Your task to perform on an android device: turn on the 24-hour format for clock Image 0: 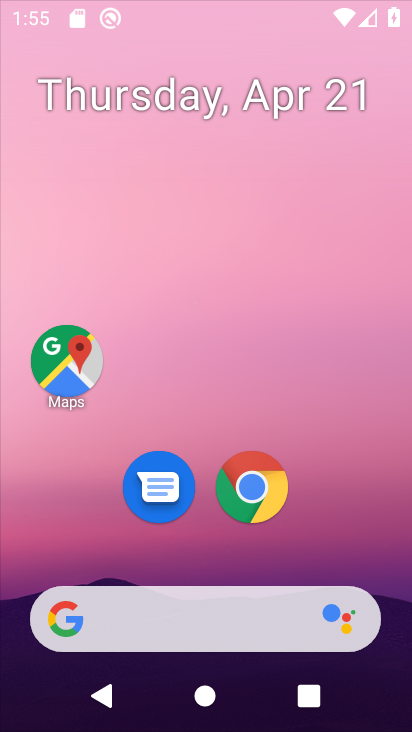
Step 0: click (174, 146)
Your task to perform on an android device: turn on the 24-hour format for clock Image 1: 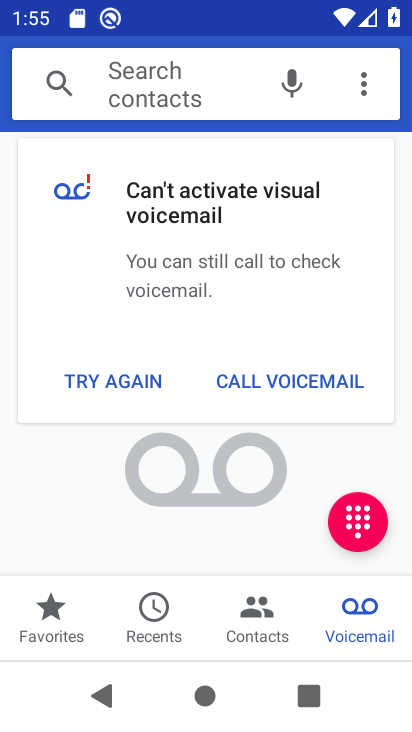
Step 1: drag from (218, 566) to (237, 378)
Your task to perform on an android device: turn on the 24-hour format for clock Image 2: 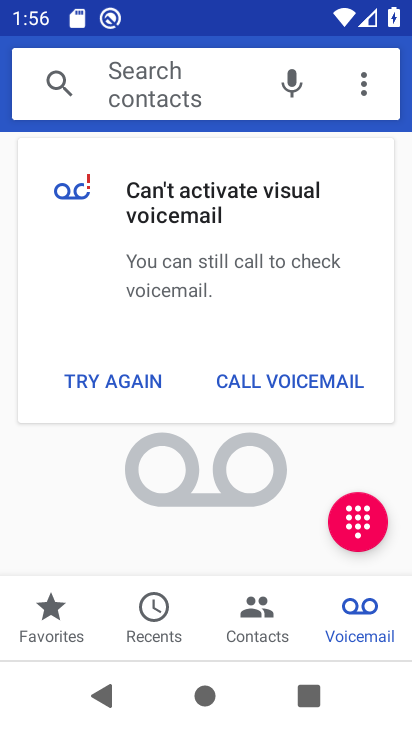
Step 2: press home button
Your task to perform on an android device: turn on the 24-hour format for clock Image 3: 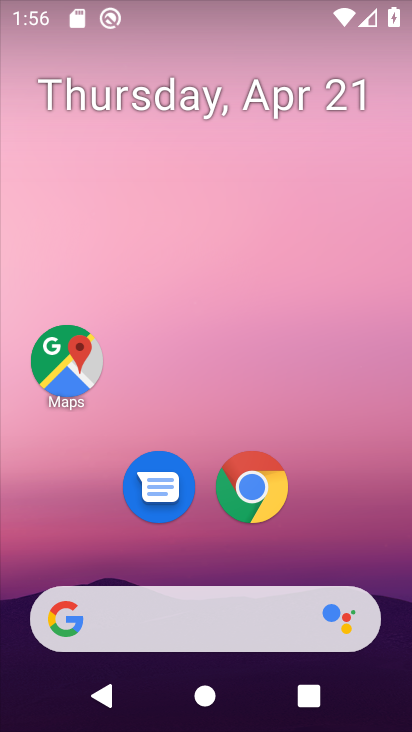
Step 3: drag from (227, 587) to (260, 232)
Your task to perform on an android device: turn on the 24-hour format for clock Image 4: 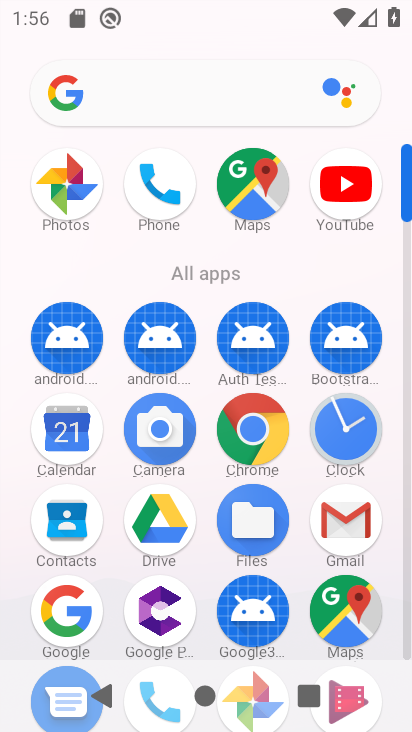
Step 4: click (354, 434)
Your task to perform on an android device: turn on the 24-hour format for clock Image 5: 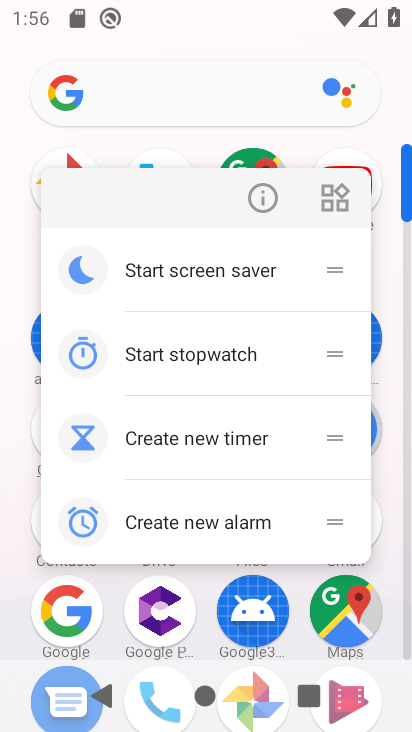
Step 5: click (258, 186)
Your task to perform on an android device: turn on the 24-hour format for clock Image 6: 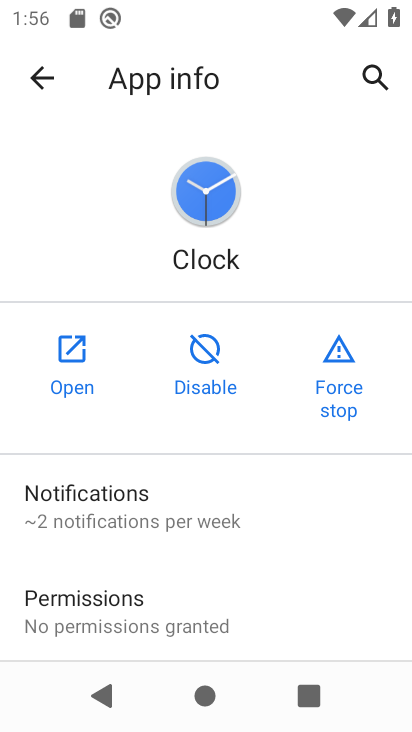
Step 6: click (79, 371)
Your task to perform on an android device: turn on the 24-hour format for clock Image 7: 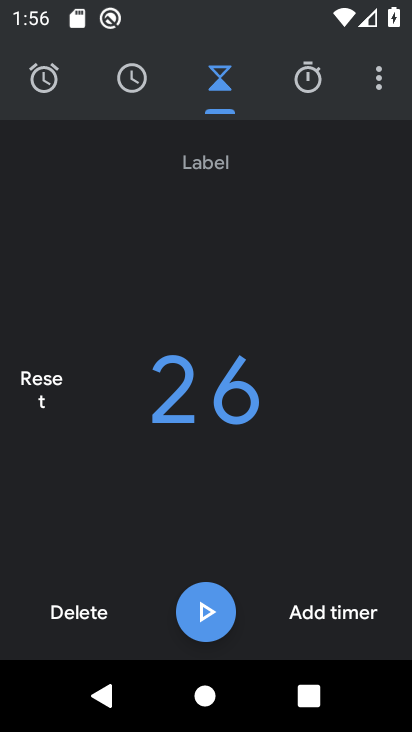
Step 7: click (379, 90)
Your task to perform on an android device: turn on the 24-hour format for clock Image 8: 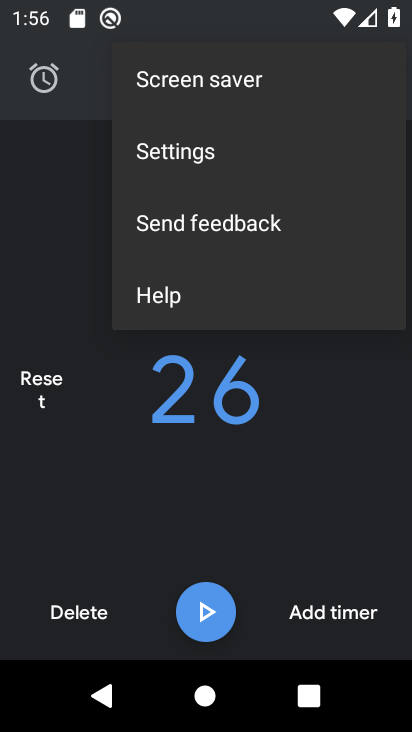
Step 8: click (230, 155)
Your task to perform on an android device: turn on the 24-hour format for clock Image 9: 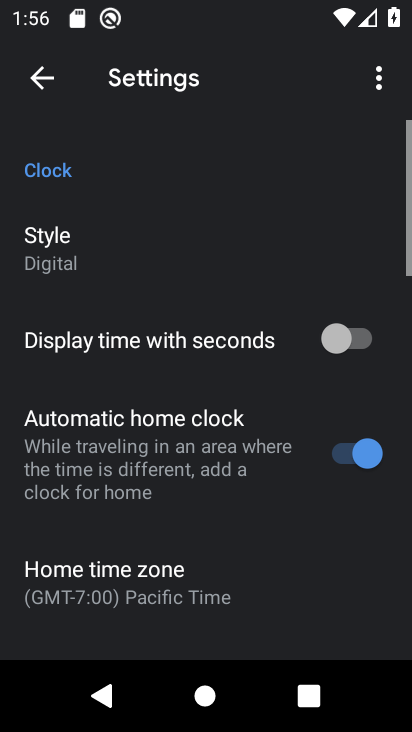
Step 9: drag from (262, 491) to (329, 16)
Your task to perform on an android device: turn on the 24-hour format for clock Image 10: 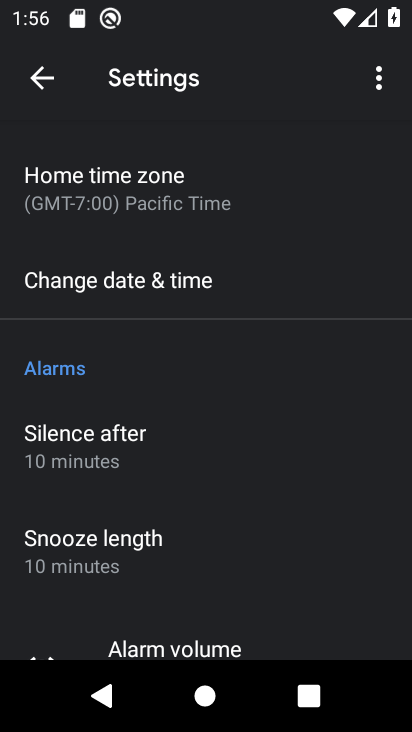
Step 10: click (167, 287)
Your task to perform on an android device: turn on the 24-hour format for clock Image 11: 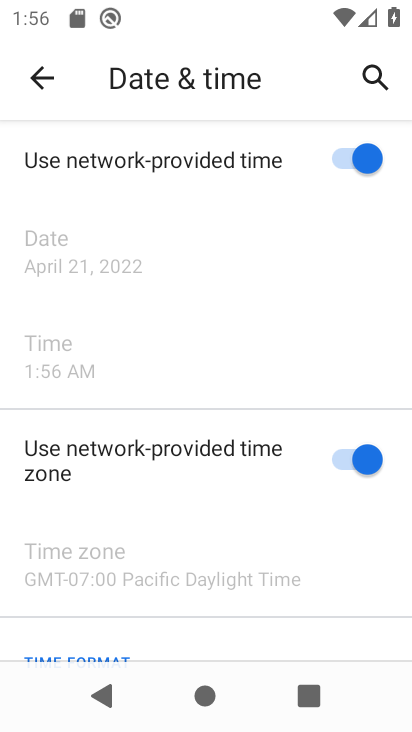
Step 11: drag from (210, 460) to (236, 58)
Your task to perform on an android device: turn on the 24-hour format for clock Image 12: 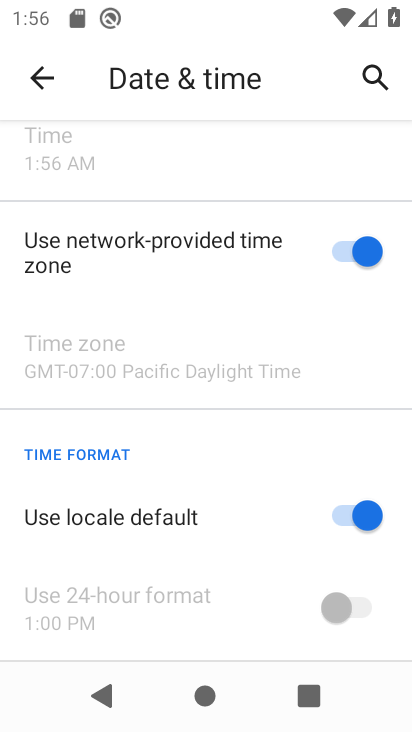
Step 12: drag from (224, 480) to (264, 100)
Your task to perform on an android device: turn on the 24-hour format for clock Image 13: 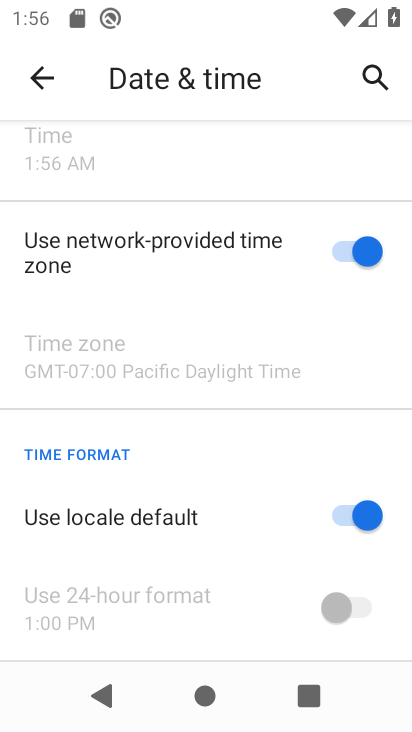
Step 13: drag from (278, 387) to (282, 178)
Your task to perform on an android device: turn on the 24-hour format for clock Image 14: 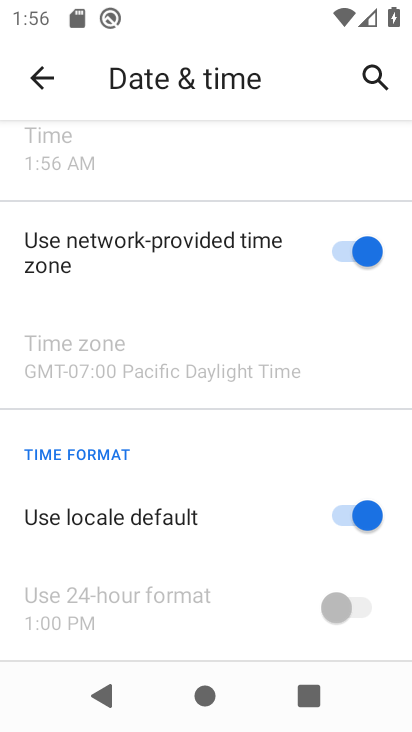
Step 14: drag from (233, 517) to (214, 332)
Your task to perform on an android device: turn on the 24-hour format for clock Image 15: 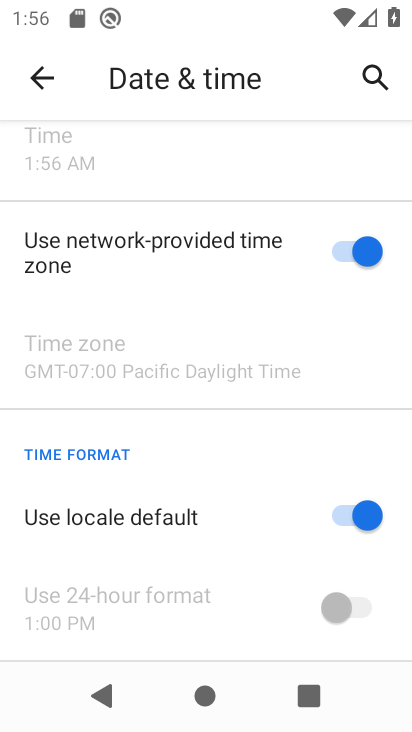
Step 15: drag from (206, 536) to (236, 256)
Your task to perform on an android device: turn on the 24-hour format for clock Image 16: 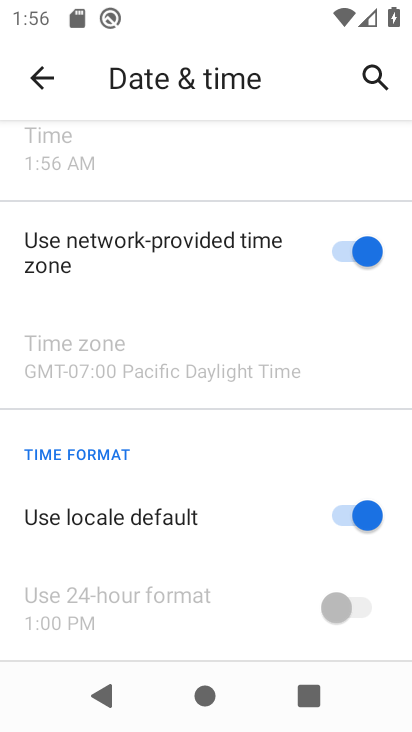
Step 16: drag from (282, 571) to (290, 346)
Your task to perform on an android device: turn on the 24-hour format for clock Image 17: 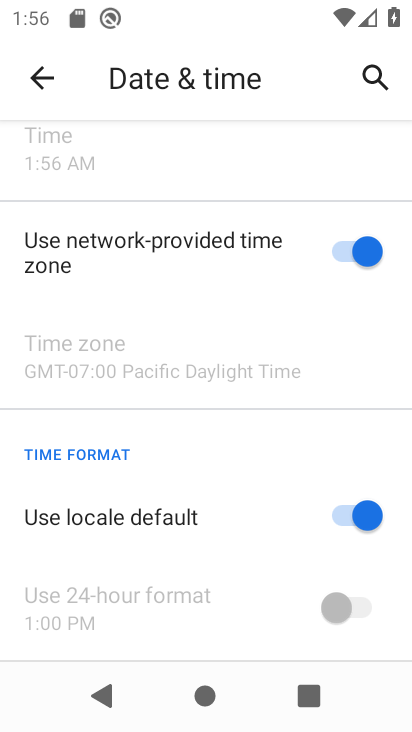
Step 17: drag from (219, 575) to (258, 338)
Your task to perform on an android device: turn on the 24-hour format for clock Image 18: 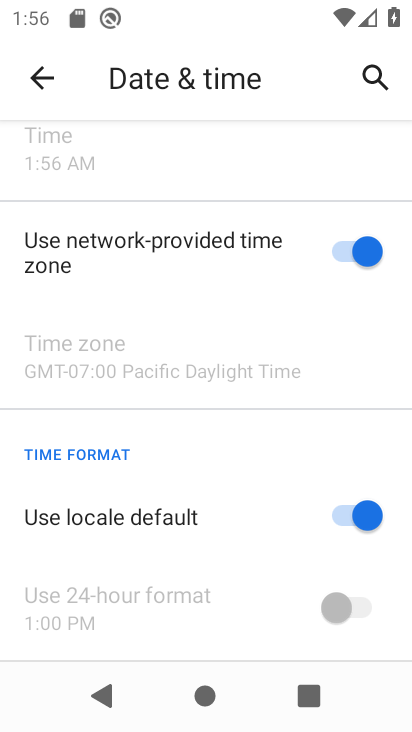
Step 18: click (344, 515)
Your task to perform on an android device: turn on the 24-hour format for clock Image 19: 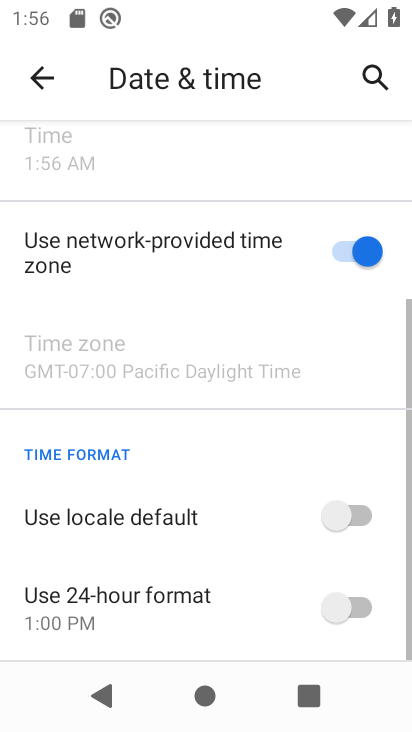
Step 19: click (354, 614)
Your task to perform on an android device: turn on the 24-hour format for clock Image 20: 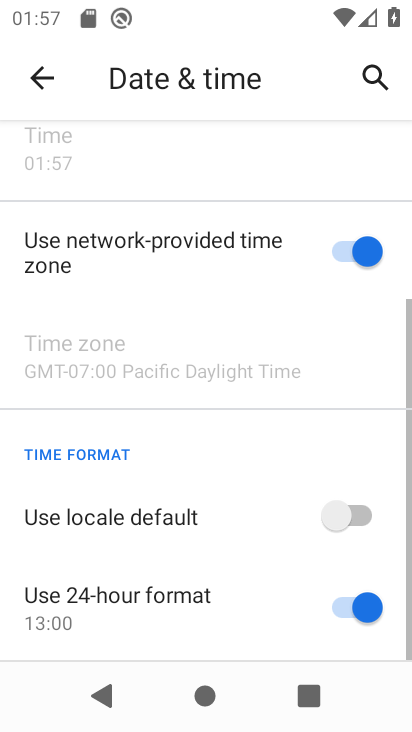
Step 20: task complete